Your task to perform on an android device: Open Yahoo.com Image 0: 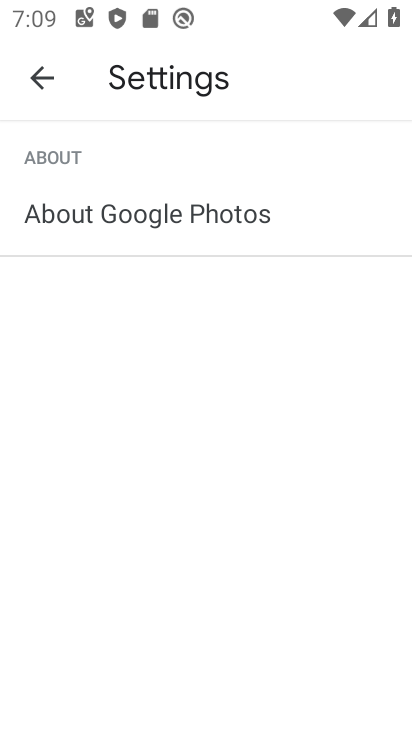
Step 0: press home button
Your task to perform on an android device: Open Yahoo.com Image 1: 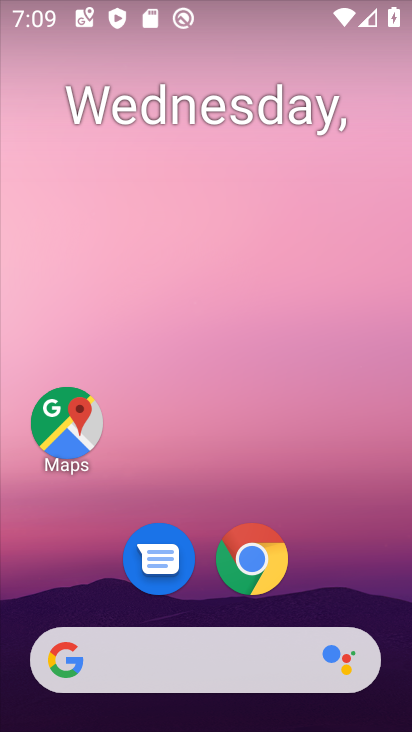
Step 1: click (222, 510)
Your task to perform on an android device: Open Yahoo.com Image 2: 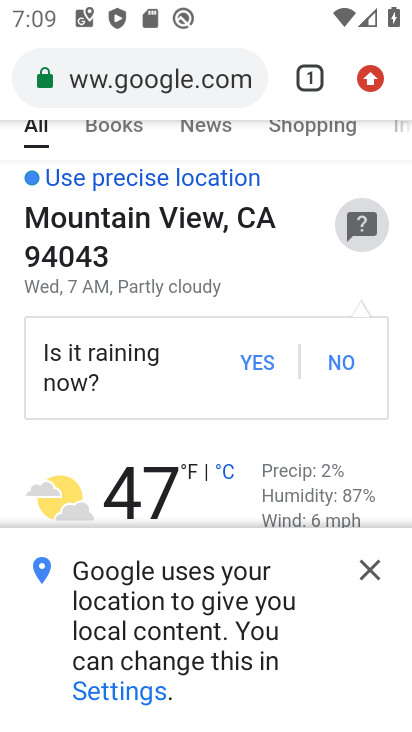
Step 2: click (216, 84)
Your task to perform on an android device: Open Yahoo.com Image 3: 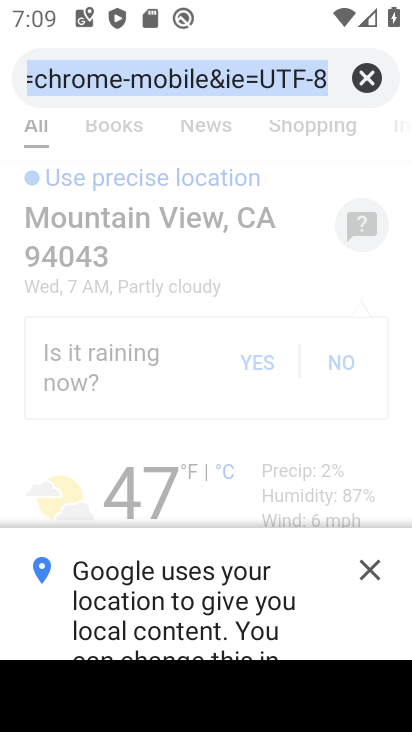
Step 3: click (365, 77)
Your task to perform on an android device: Open Yahoo.com Image 4: 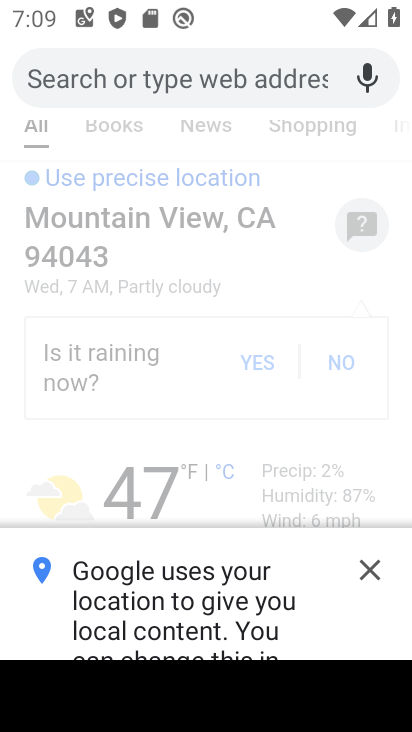
Step 4: click (194, 80)
Your task to perform on an android device: Open Yahoo.com Image 5: 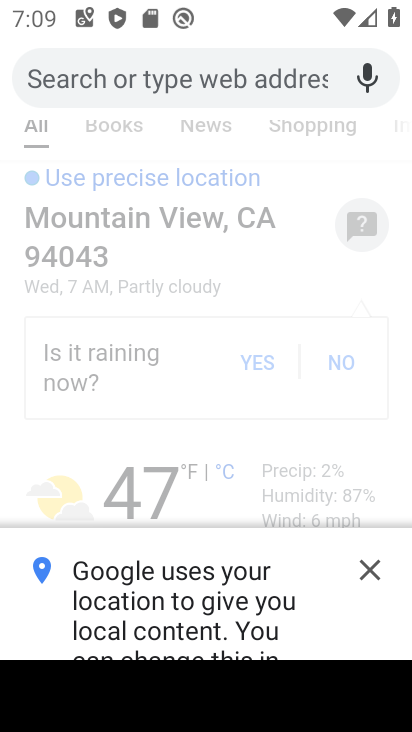
Step 5: click (188, 77)
Your task to perform on an android device: Open Yahoo.com Image 6: 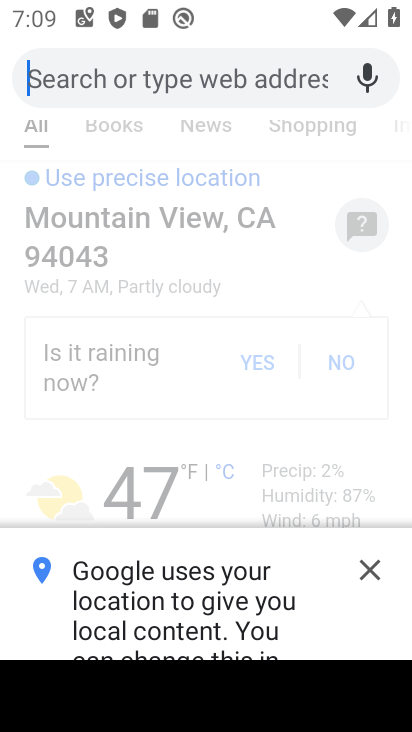
Step 6: press back button
Your task to perform on an android device: Open Yahoo.com Image 7: 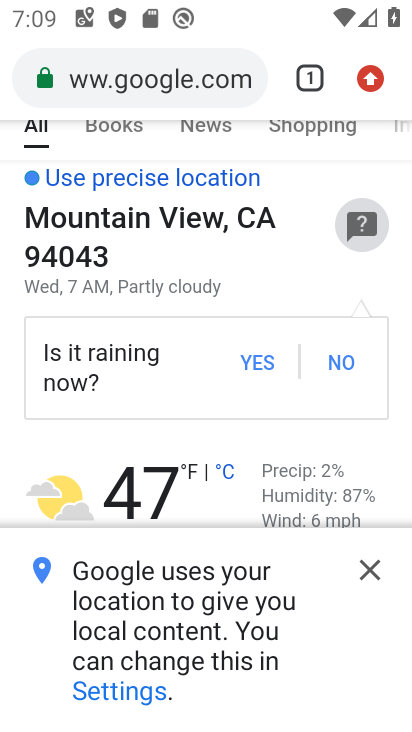
Step 7: click (359, 78)
Your task to perform on an android device: Open Yahoo.com Image 8: 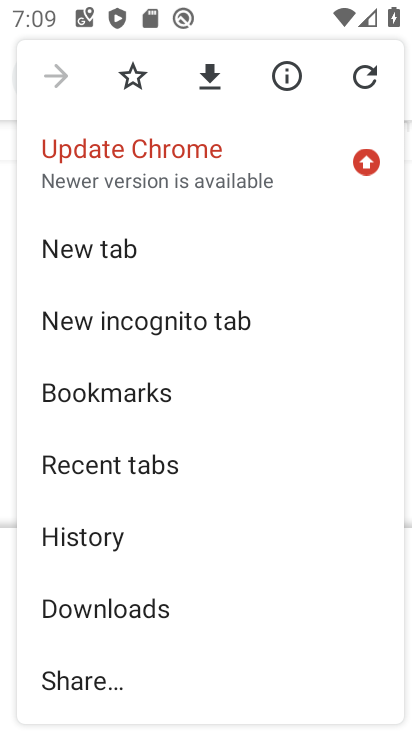
Step 8: click (159, 243)
Your task to perform on an android device: Open Yahoo.com Image 9: 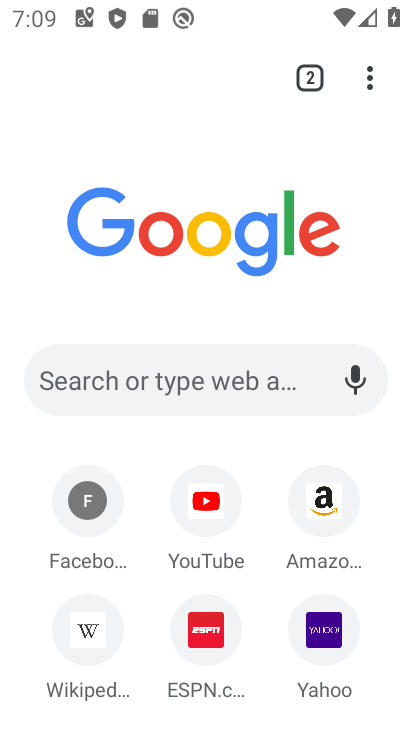
Step 9: click (315, 642)
Your task to perform on an android device: Open Yahoo.com Image 10: 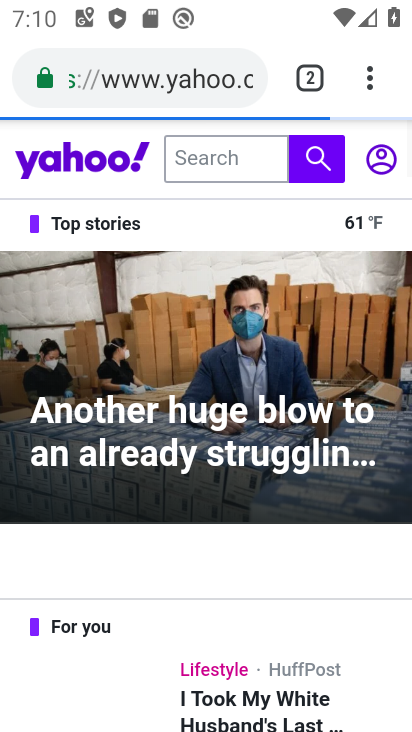
Step 10: task complete